Your task to perform on an android device: Do I have any events tomorrow? Image 0: 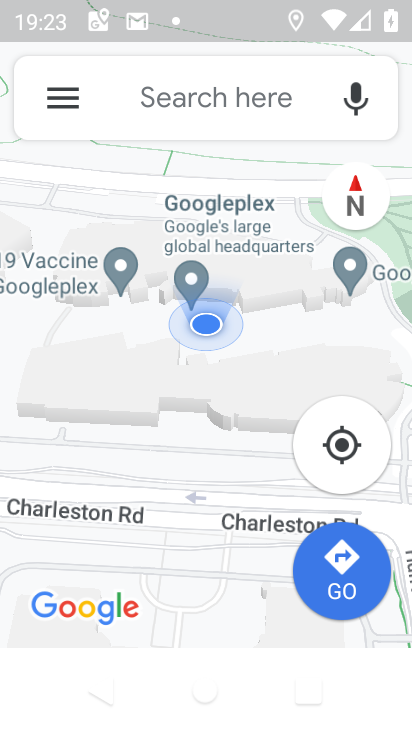
Step 0: press home button
Your task to perform on an android device: Do I have any events tomorrow? Image 1: 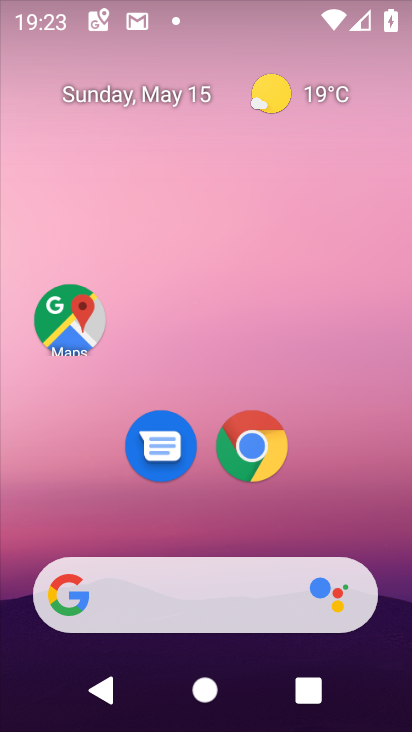
Step 1: drag from (259, 639) to (185, 148)
Your task to perform on an android device: Do I have any events tomorrow? Image 2: 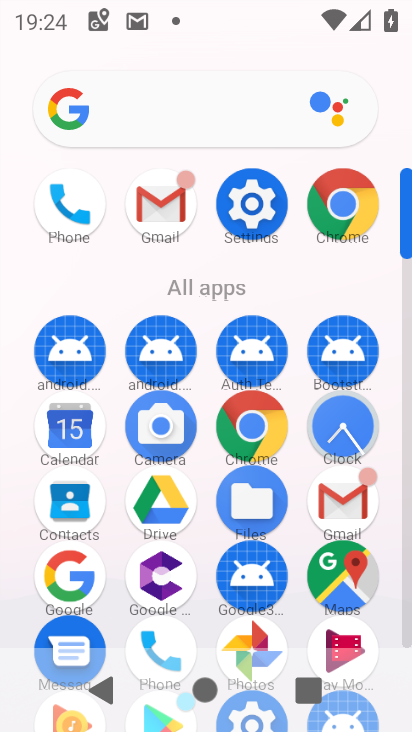
Step 2: click (82, 427)
Your task to perform on an android device: Do I have any events tomorrow? Image 3: 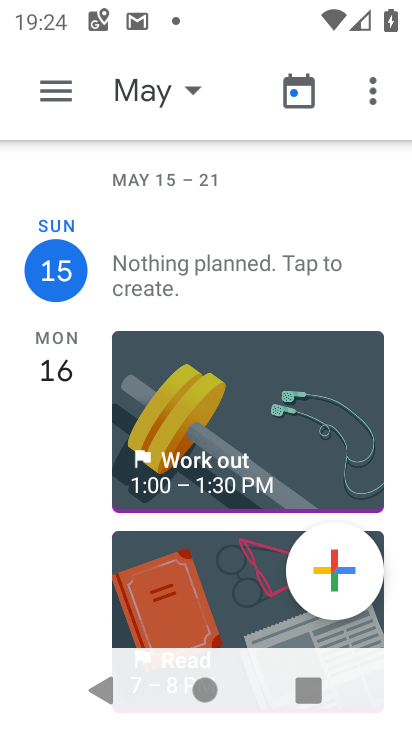
Step 3: click (40, 97)
Your task to perform on an android device: Do I have any events tomorrow? Image 4: 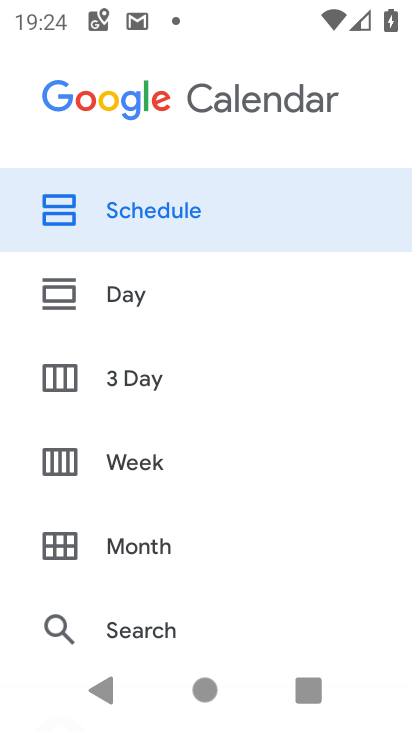
Step 4: click (150, 373)
Your task to perform on an android device: Do I have any events tomorrow? Image 5: 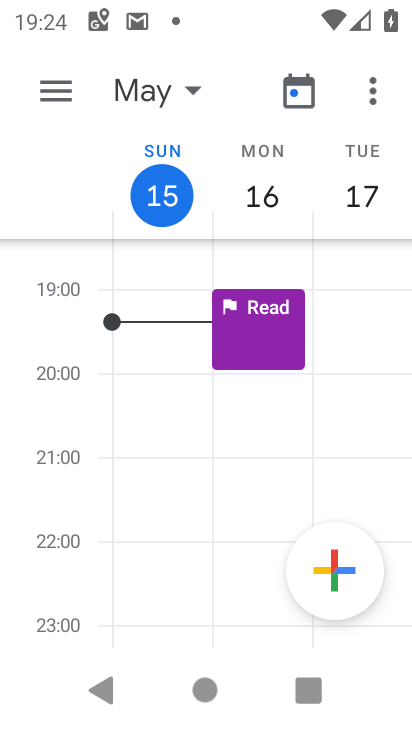
Step 5: click (259, 204)
Your task to perform on an android device: Do I have any events tomorrow? Image 6: 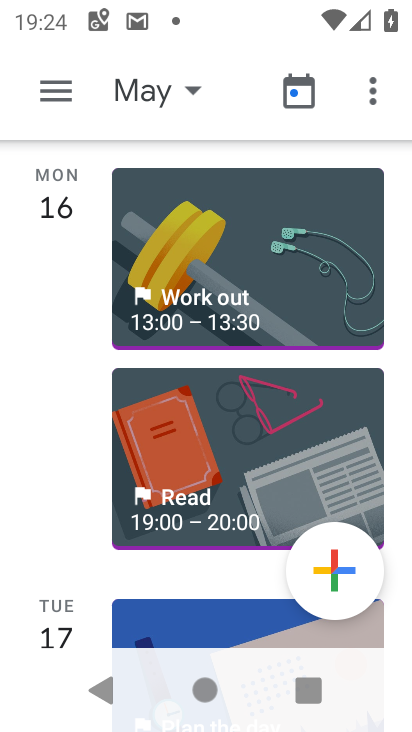
Step 6: task complete